Your task to perform on an android device: add a label to a message in the gmail app Image 0: 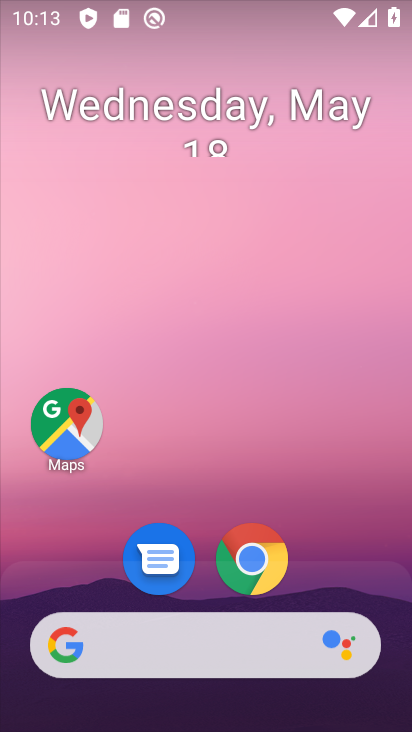
Step 0: drag from (207, 582) to (266, 201)
Your task to perform on an android device: add a label to a message in the gmail app Image 1: 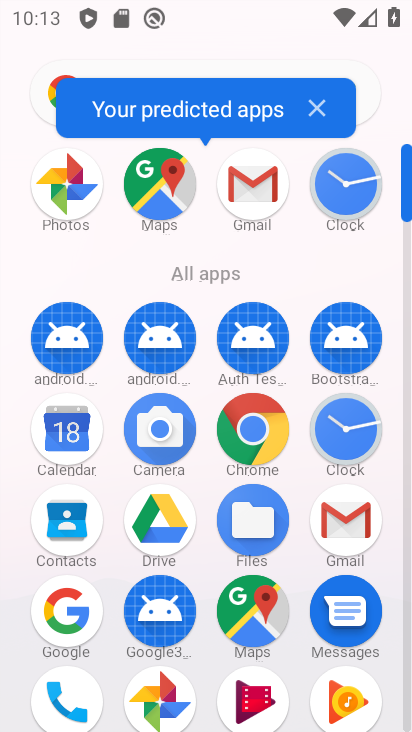
Step 1: click (255, 190)
Your task to perform on an android device: add a label to a message in the gmail app Image 2: 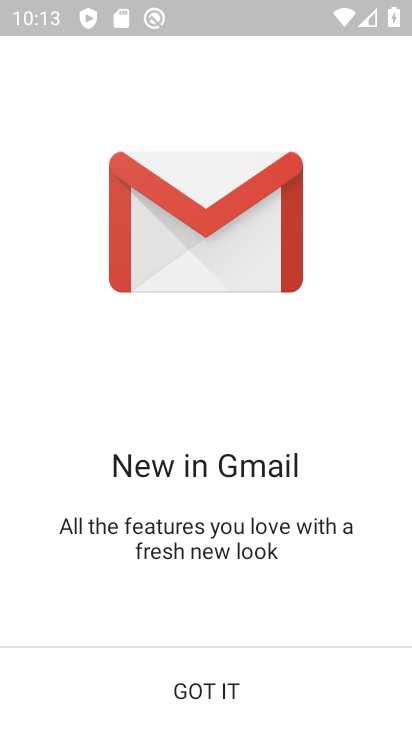
Step 2: click (225, 689)
Your task to perform on an android device: add a label to a message in the gmail app Image 3: 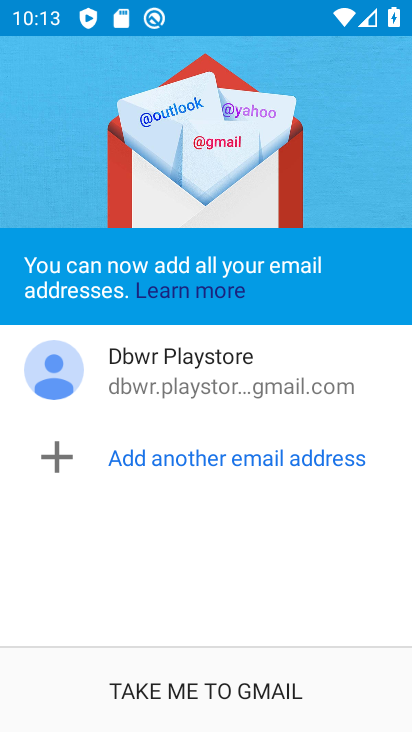
Step 3: click (195, 697)
Your task to perform on an android device: add a label to a message in the gmail app Image 4: 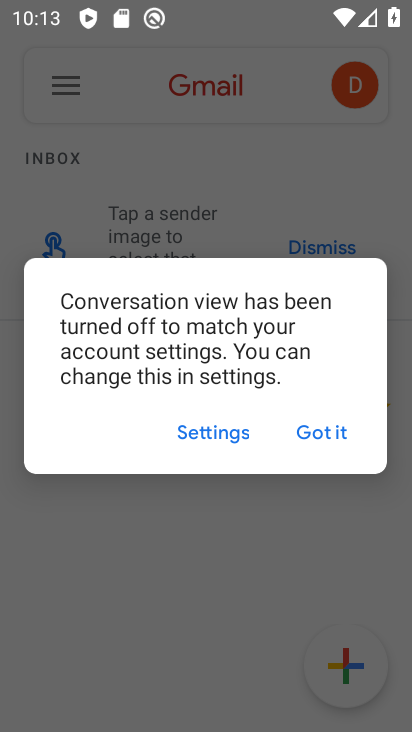
Step 4: click (309, 440)
Your task to perform on an android device: add a label to a message in the gmail app Image 5: 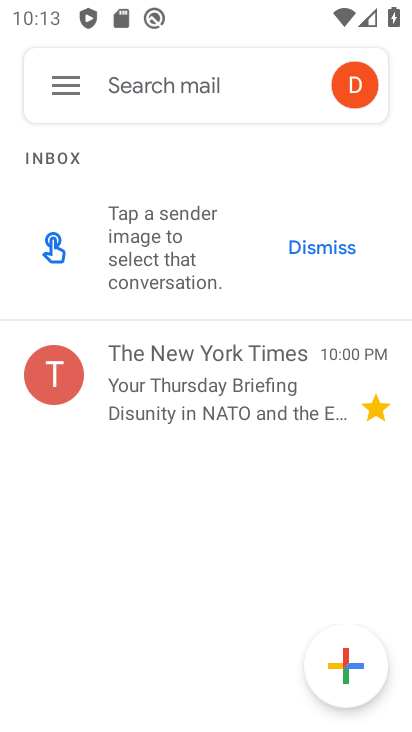
Step 5: click (193, 383)
Your task to perform on an android device: add a label to a message in the gmail app Image 6: 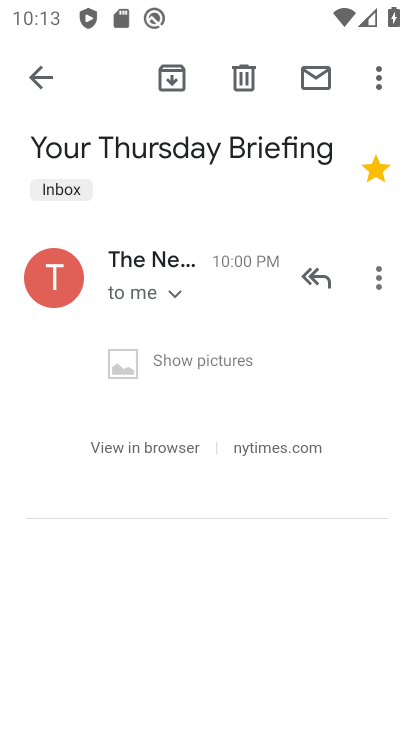
Step 6: click (383, 77)
Your task to perform on an android device: add a label to a message in the gmail app Image 7: 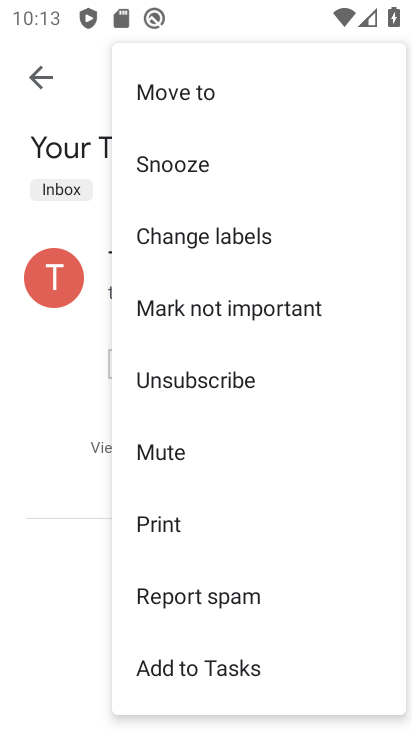
Step 7: click (277, 228)
Your task to perform on an android device: add a label to a message in the gmail app Image 8: 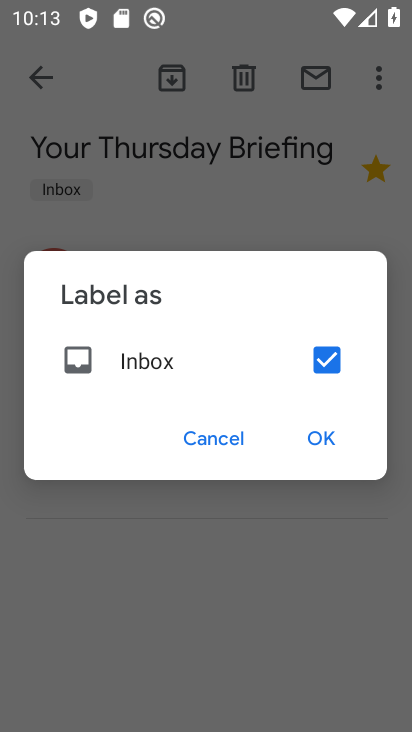
Step 8: click (301, 453)
Your task to perform on an android device: add a label to a message in the gmail app Image 9: 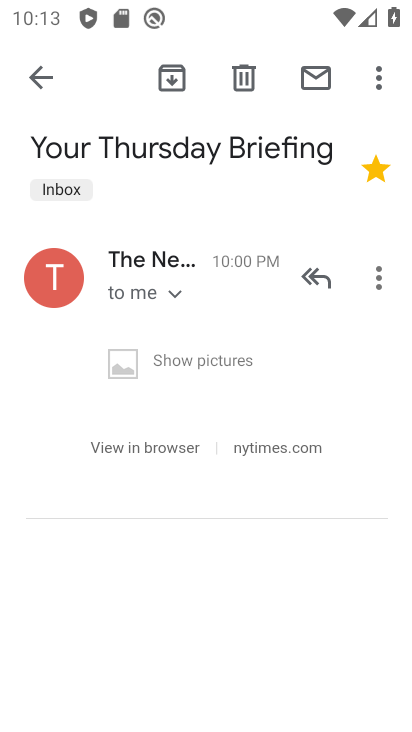
Step 9: task complete